Your task to perform on an android device: View the shopping cart on costco. Image 0: 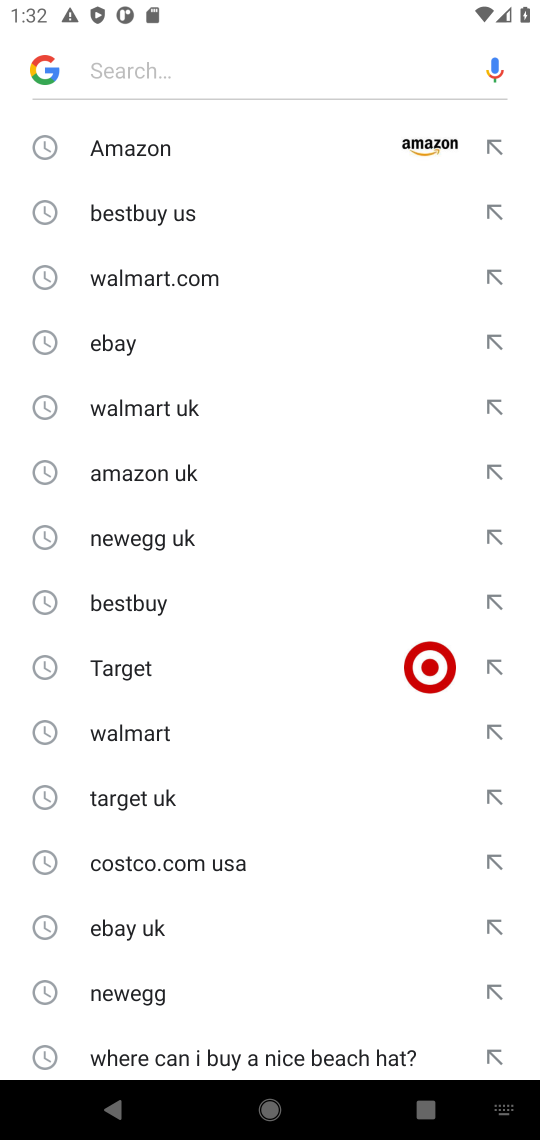
Step 0: click (152, 77)
Your task to perform on an android device: View the shopping cart on costco. Image 1: 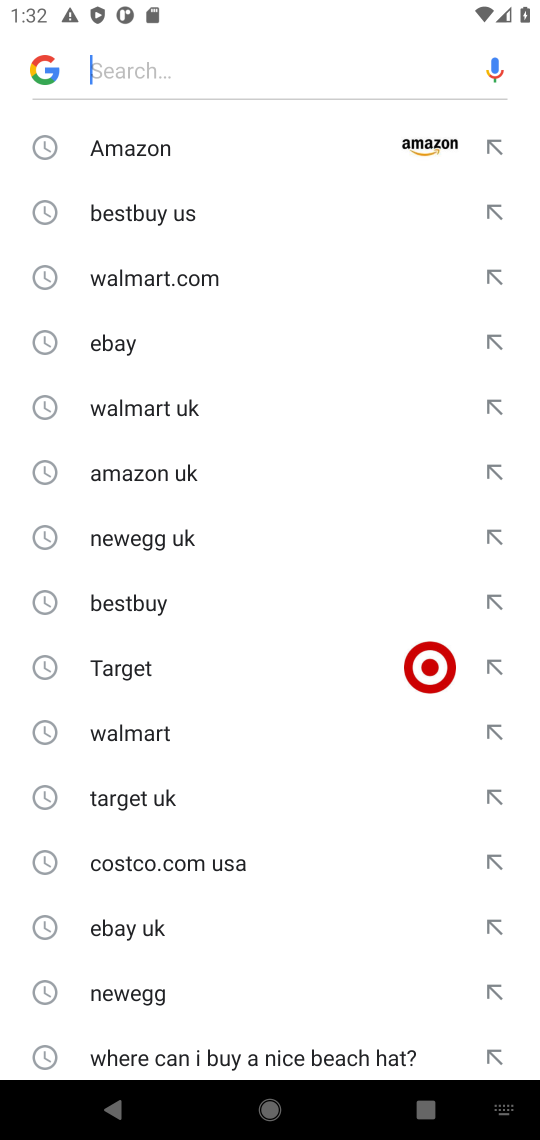
Step 1: type "costco.com"
Your task to perform on an android device: View the shopping cart on costco. Image 2: 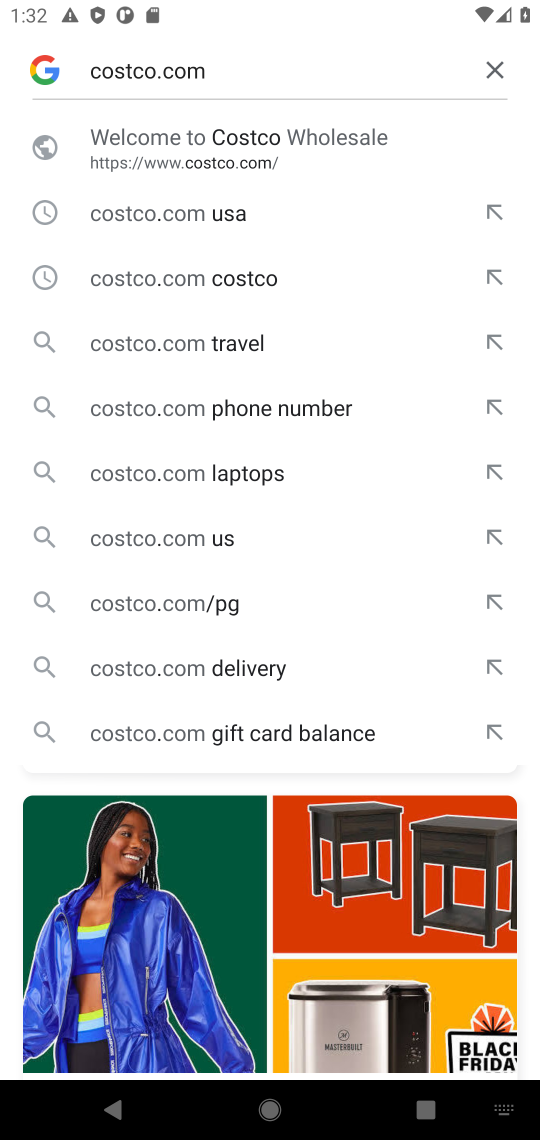
Step 2: click (133, 141)
Your task to perform on an android device: View the shopping cart on costco. Image 3: 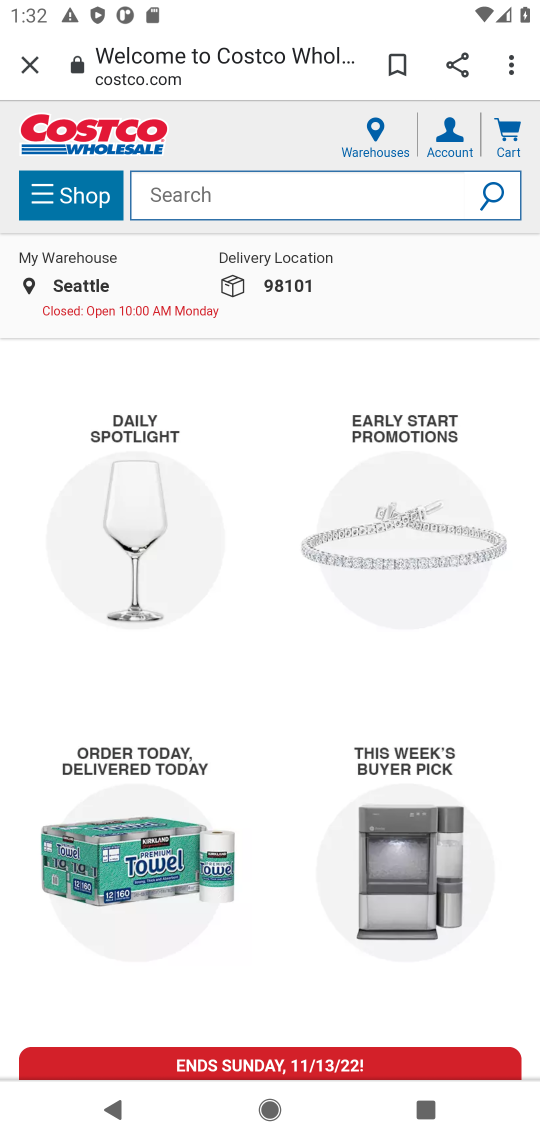
Step 3: click (506, 139)
Your task to perform on an android device: View the shopping cart on costco. Image 4: 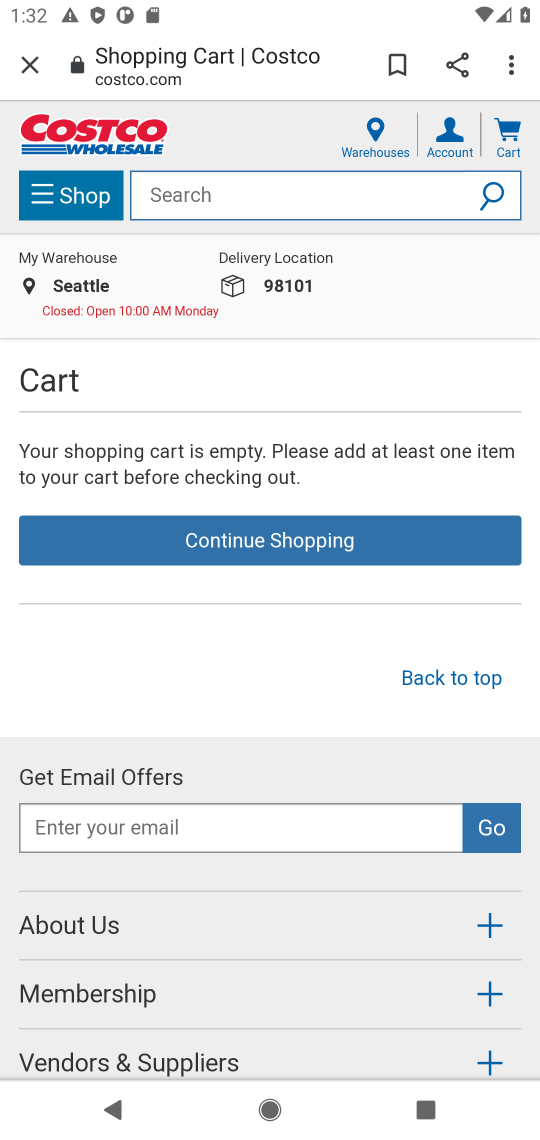
Step 4: task complete